Your task to perform on an android device: change text size in settings app Image 0: 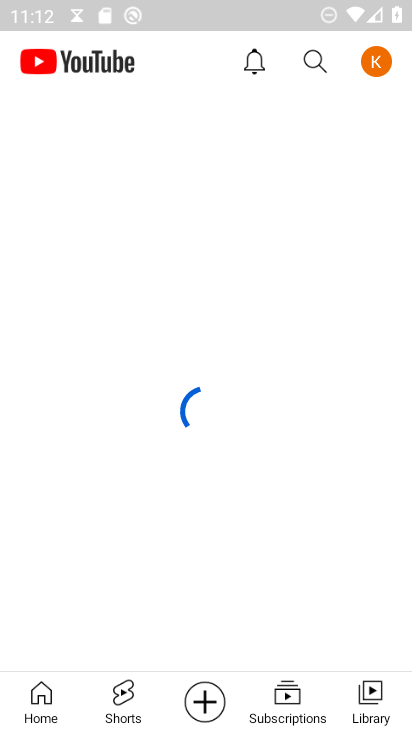
Step 0: press home button
Your task to perform on an android device: change text size in settings app Image 1: 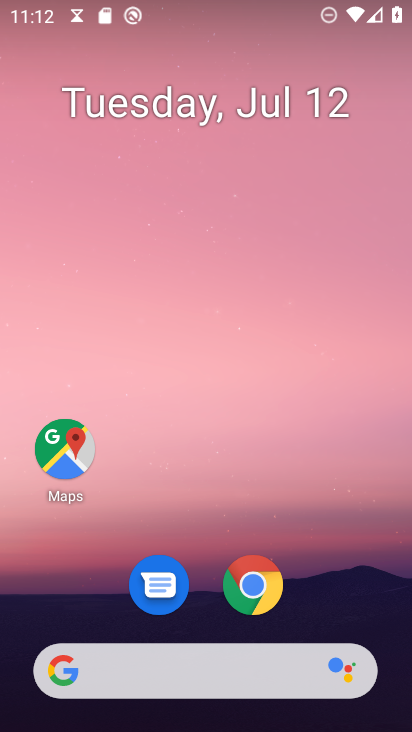
Step 1: press home button
Your task to perform on an android device: change text size in settings app Image 2: 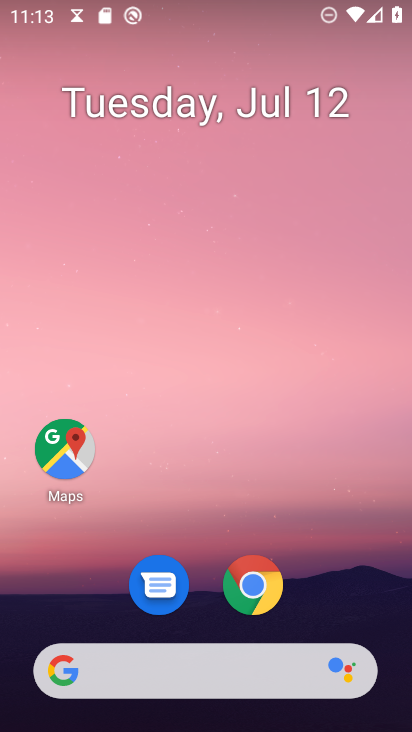
Step 2: drag from (201, 653) to (306, 202)
Your task to perform on an android device: change text size in settings app Image 3: 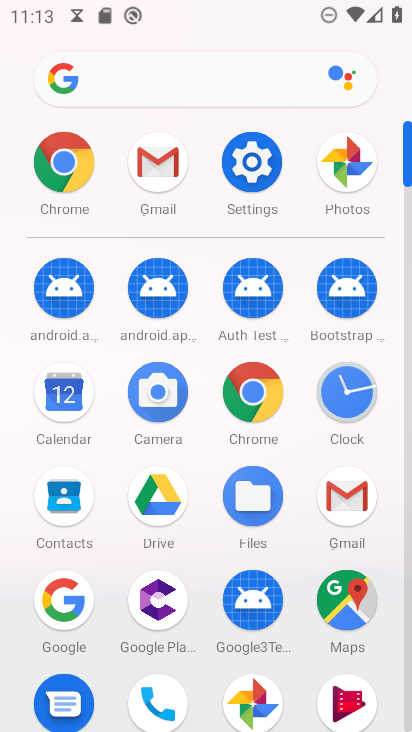
Step 3: click (245, 174)
Your task to perform on an android device: change text size in settings app Image 4: 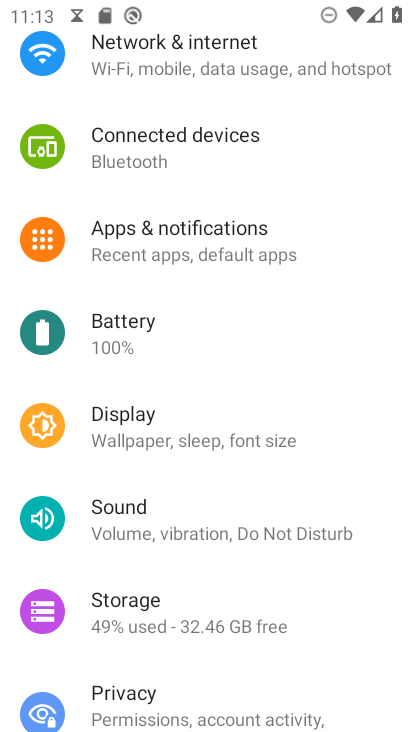
Step 4: click (162, 428)
Your task to perform on an android device: change text size in settings app Image 5: 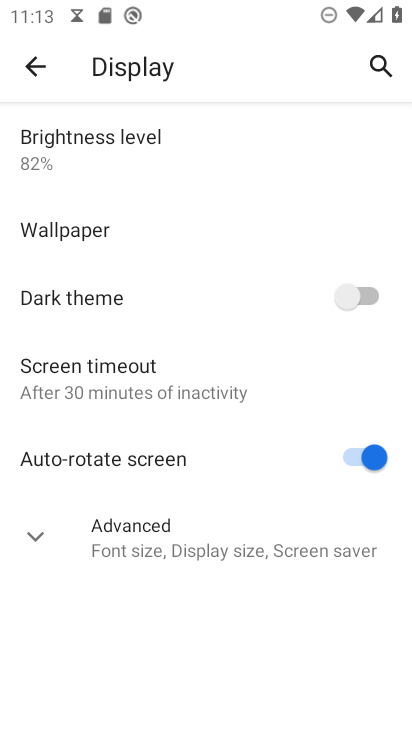
Step 5: click (113, 530)
Your task to perform on an android device: change text size in settings app Image 6: 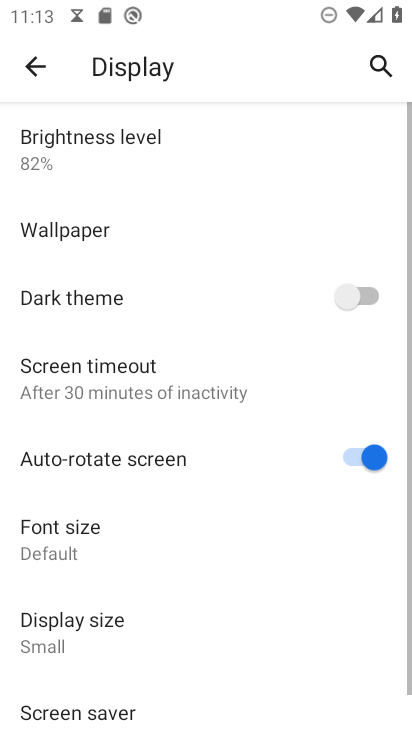
Step 6: drag from (176, 547) to (265, 275)
Your task to perform on an android device: change text size in settings app Image 7: 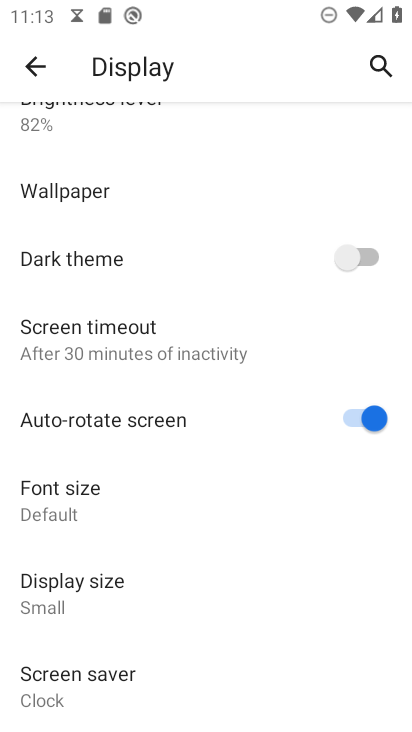
Step 7: click (96, 501)
Your task to perform on an android device: change text size in settings app Image 8: 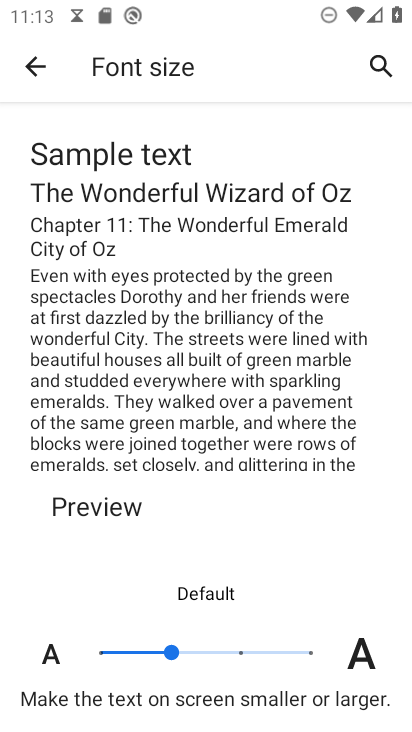
Step 8: click (98, 649)
Your task to perform on an android device: change text size in settings app Image 9: 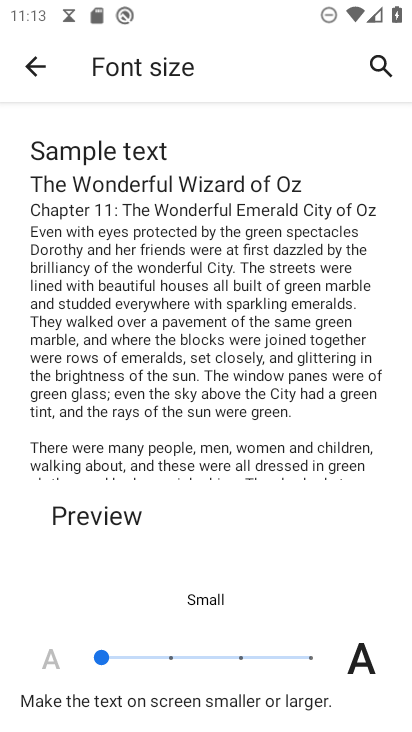
Step 9: task complete